Your task to perform on an android device: open wifi settings Image 0: 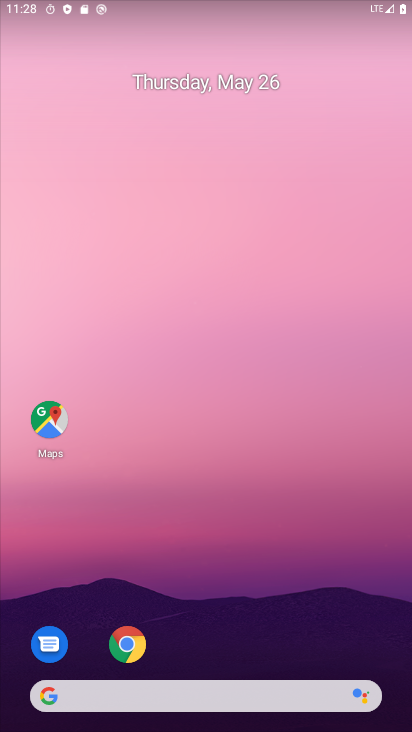
Step 0: drag from (129, 722) to (192, 86)
Your task to perform on an android device: open wifi settings Image 1: 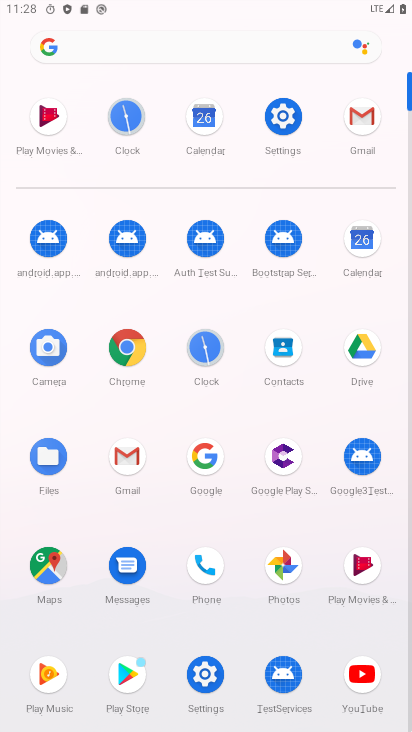
Step 1: click (289, 119)
Your task to perform on an android device: open wifi settings Image 2: 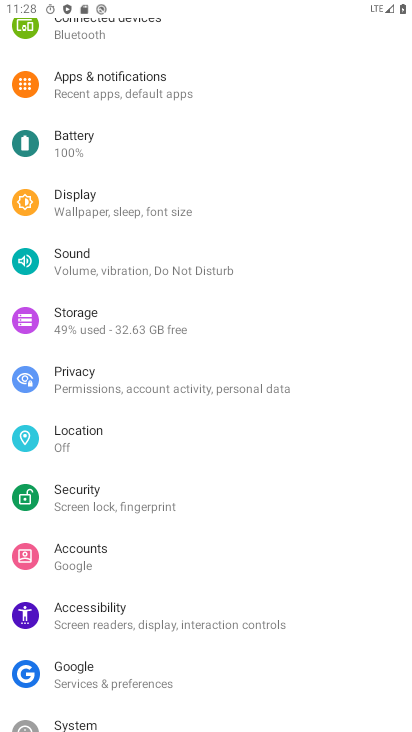
Step 2: drag from (232, 84) to (248, 649)
Your task to perform on an android device: open wifi settings Image 3: 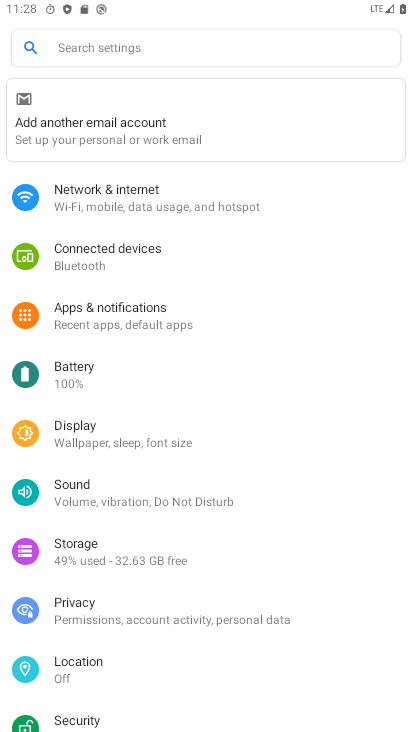
Step 3: click (185, 193)
Your task to perform on an android device: open wifi settings Image 4: 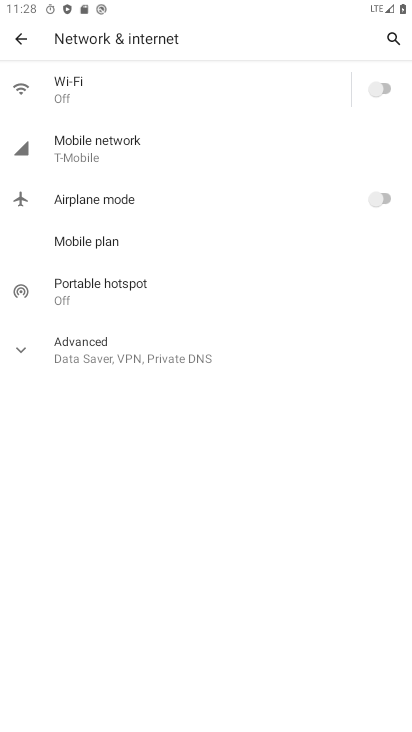
Step 4: click (112, 91)
Your task to perform on an android device: open wifi settings Image 5: 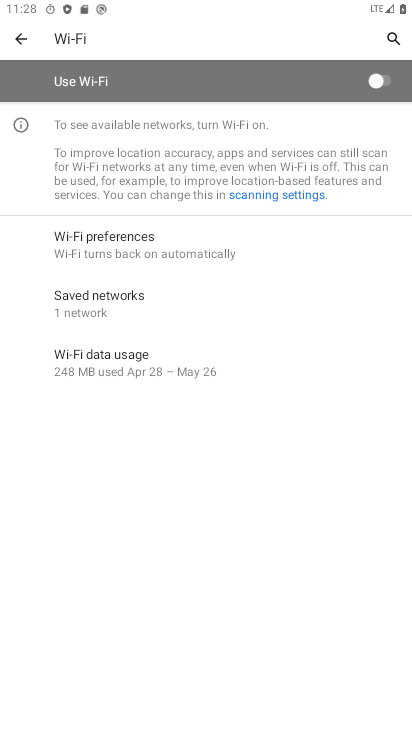
Step 5: task complete